Your task to perform on an android device: View the shopping cart on costco. Search for bose quietcomfort 35 on costco, select the first entry, add it to the cart, then select checkout. Image 0: 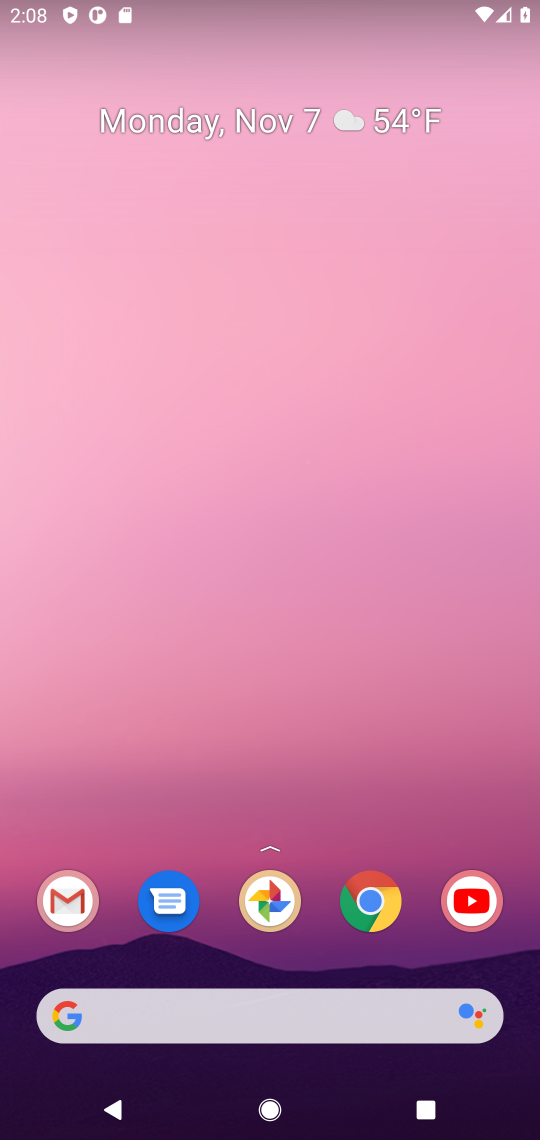
Step 0: click (380, 904)
Your task to perform on an android device: View the shopping cart on costco. Search for bose quietcomfort 35 on costco, select the first entry, add it to the cart, then select checkout. Image 1: 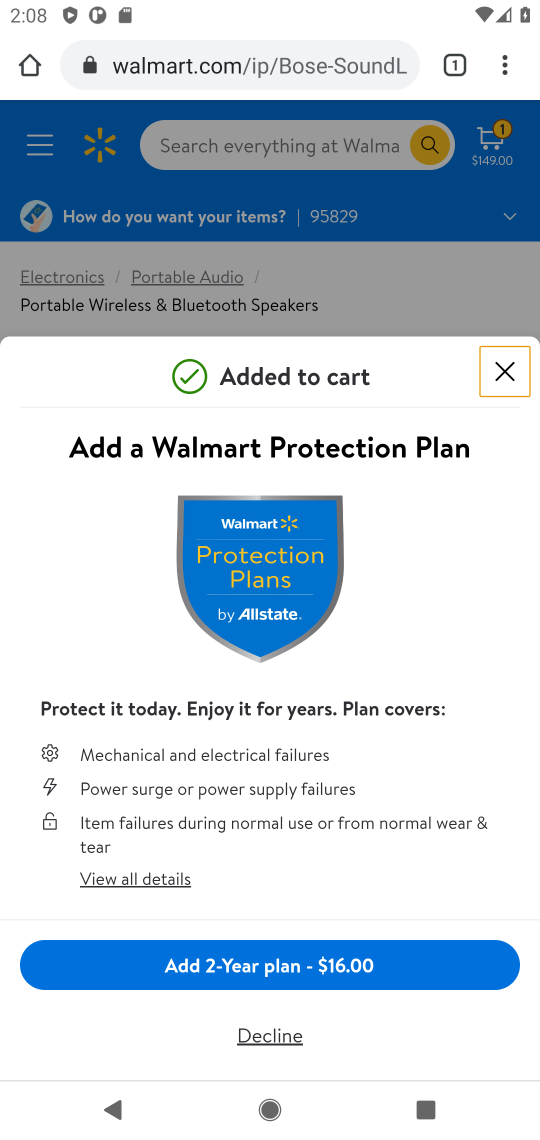
Step 1: click (222, 77)
Your task to perform on an android device: View the shopping cart on costco. Search for bose quietcomfort 35 on costco, select the first entry, add it to the cart, then select checkout. Image 2: 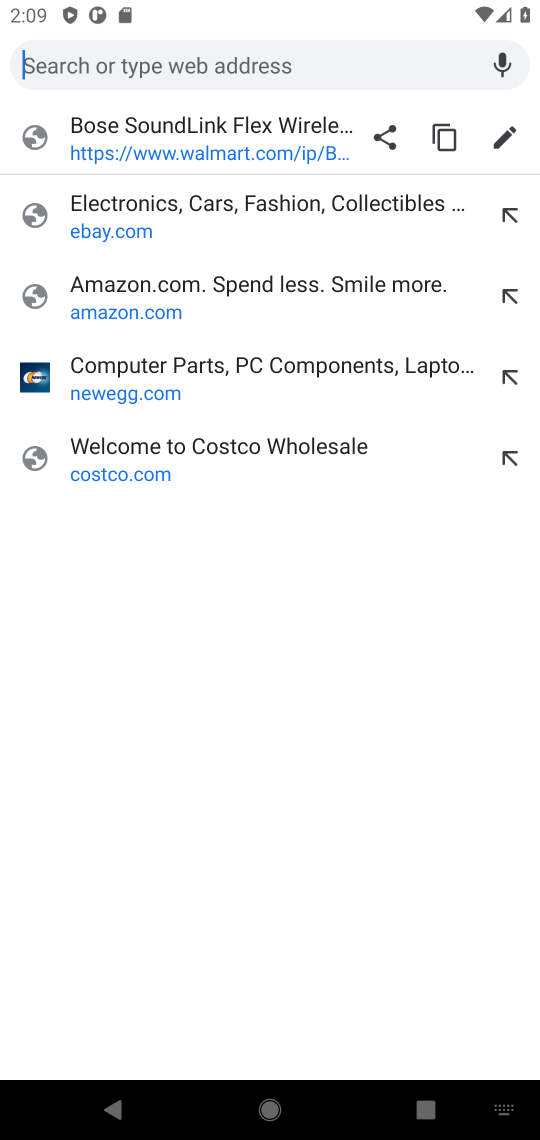
Step 2: click (124, 455)
Your task to perform on an android device: View the shopping cart on costco. Search for bose quietcomfort 35 on costco, select the first entry, add it to the cart, then select checkout. Image 3: 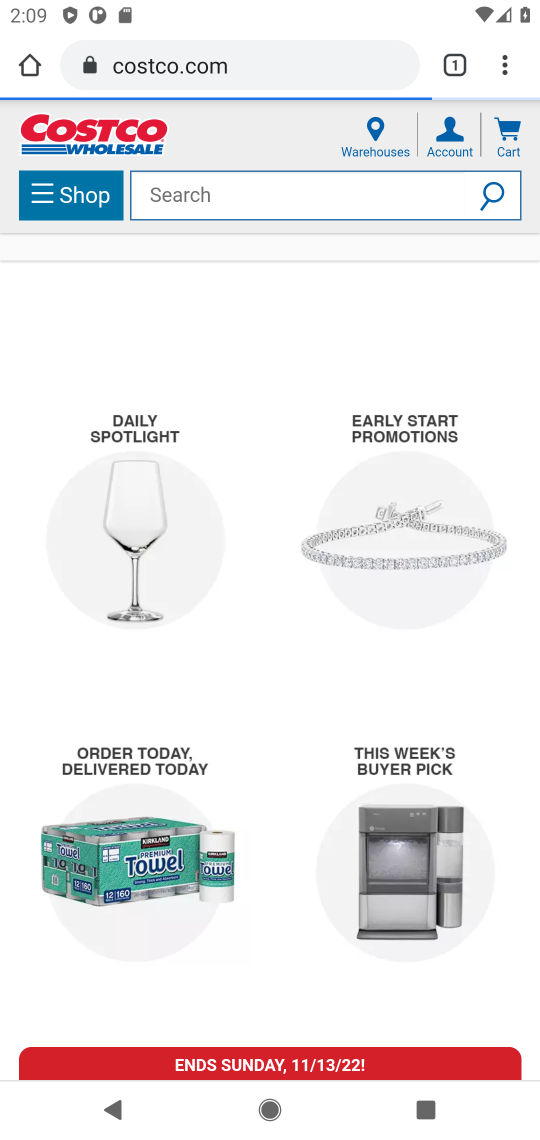
Step 3: click (513, 129)
Your task to perform on an android device: View the shopping cart on costco. Search for bose quietcomfort 35 on costco, select the first entry, add it to the cart, then select checkout. Image 4: 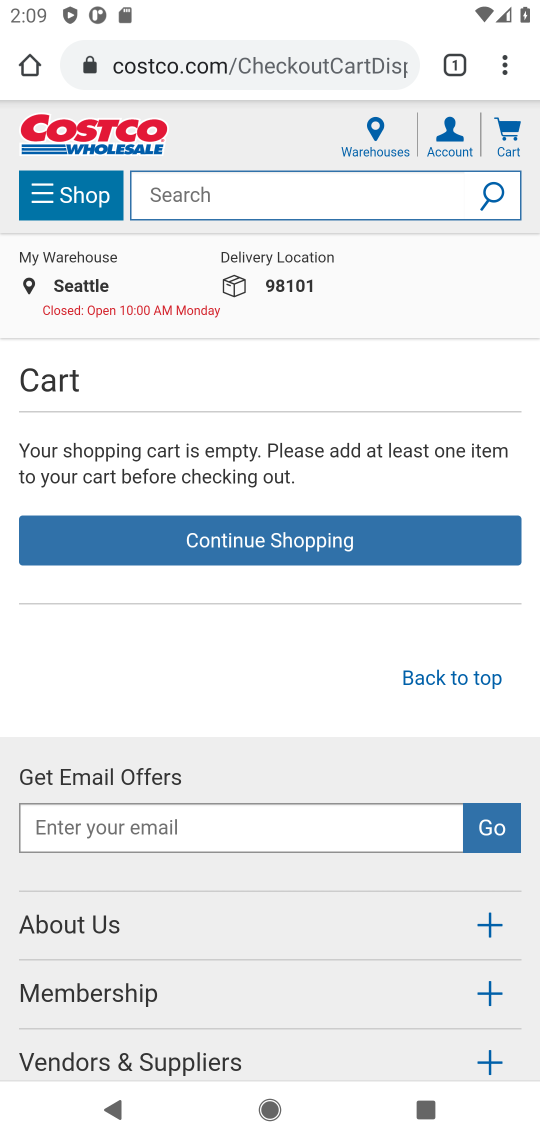
Step 4: click (264, 186)
Your task to perform on an android device: View the shopping cart on costco. Search for bose quietcomfort 35 on costco, select the first entry, add it to the cart, then select checkout. Image 5: 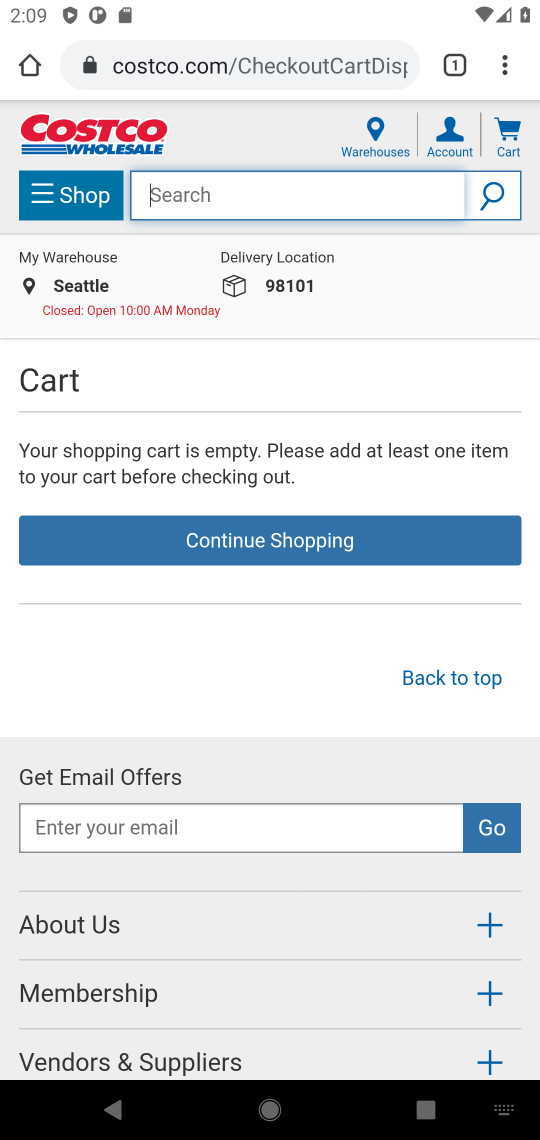
Step 5: type "bose quietcomfort 35"
Your task to perform on an android device: View the shopping cart on costco. Search for bose quietcomfort 35 on costco, select the first entry, add it to the cart, then select checkout. Image 6: 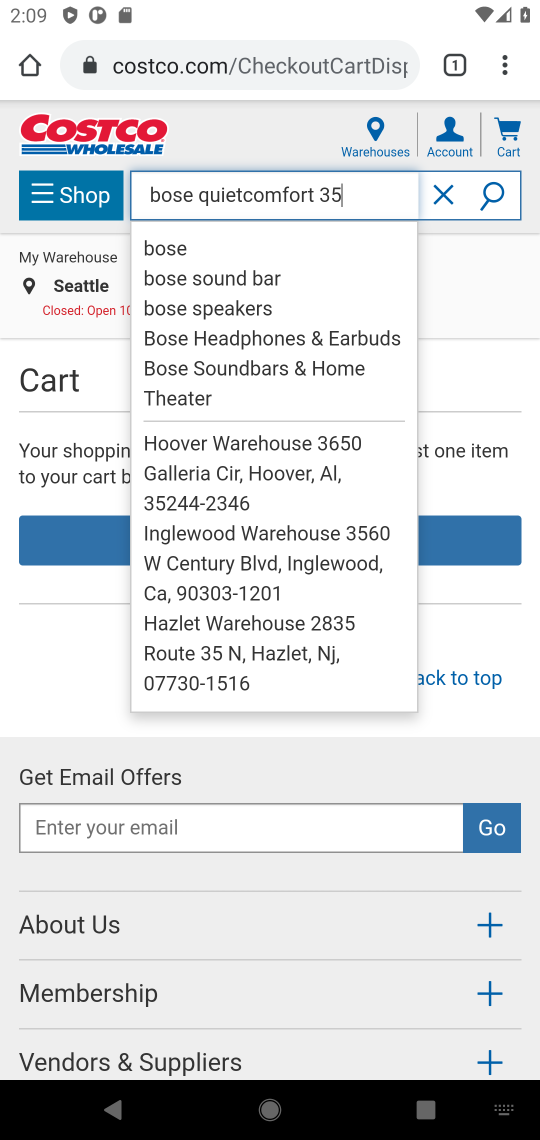
Step 6: click (493, 194)
Your task to perform on an android device: View the shopping cart on costco. Search for bose quietcomfort 35 on costco, select the first entry, add it to the cart, then select checkout. Image 7: 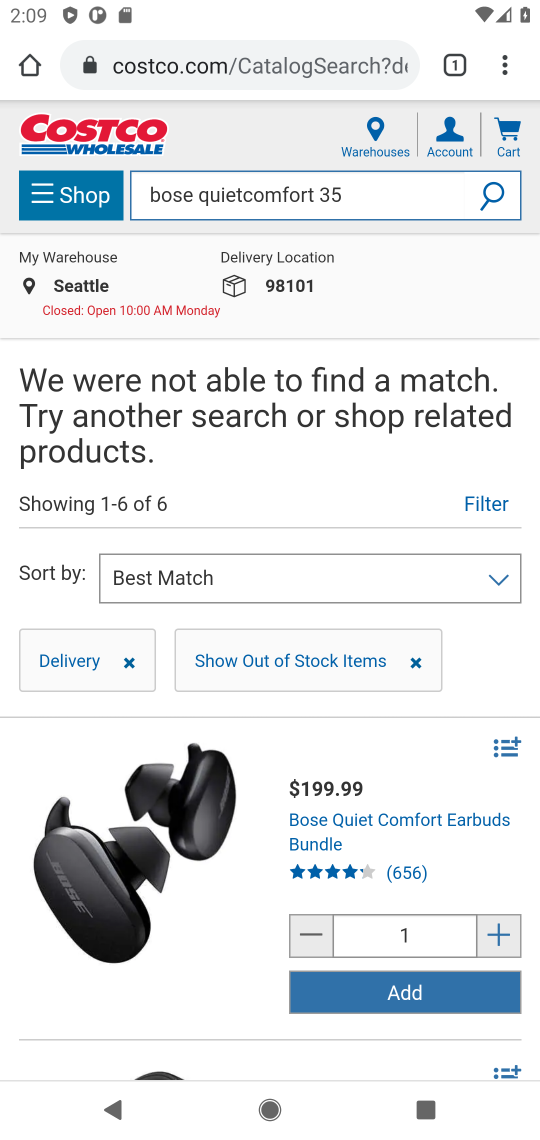
Step 7: task complete